Your task to perform on an android device: Open calendar and show me the fourth week of next month Image 0: 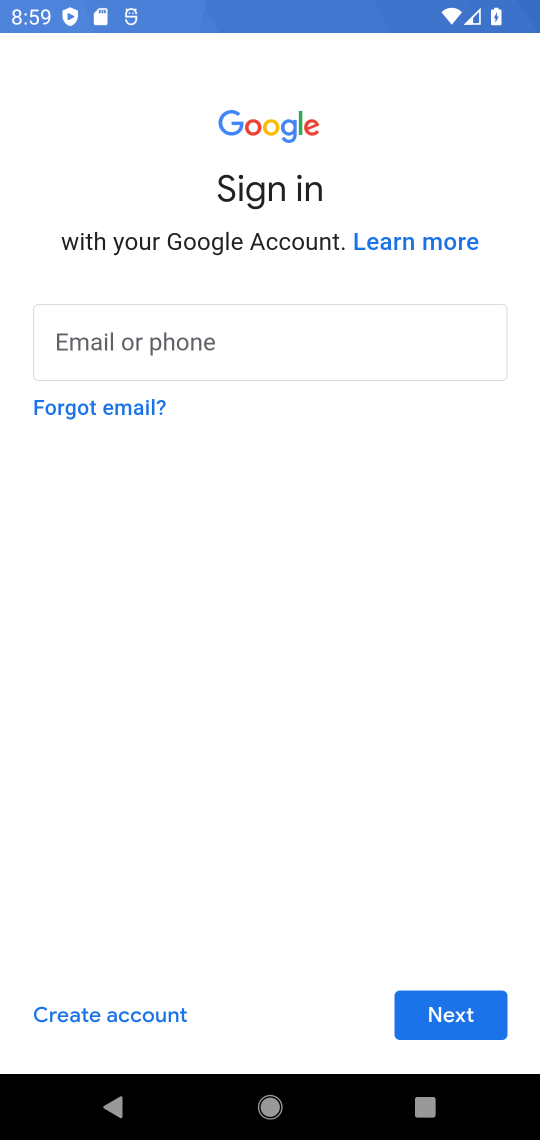
Step 0: press home button
Your task to perform on an android device: Open calendar and show me the fourth week of next month Image 1: 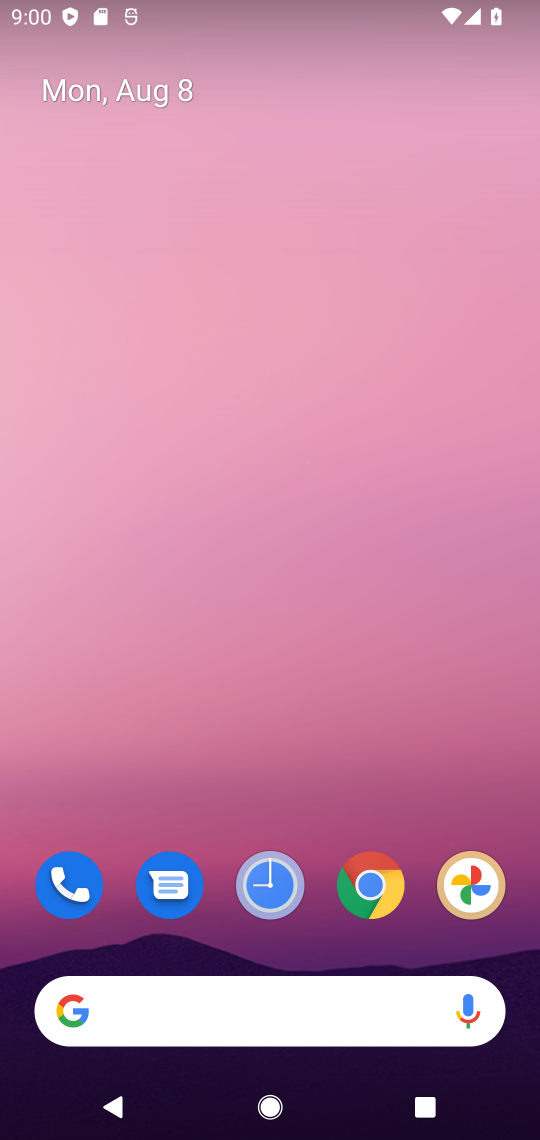
Step 1: drag from (168, 686) to (222, 256)
Your task to perform on an android device: Open calendar and show me the fourth week of next month Image 2: 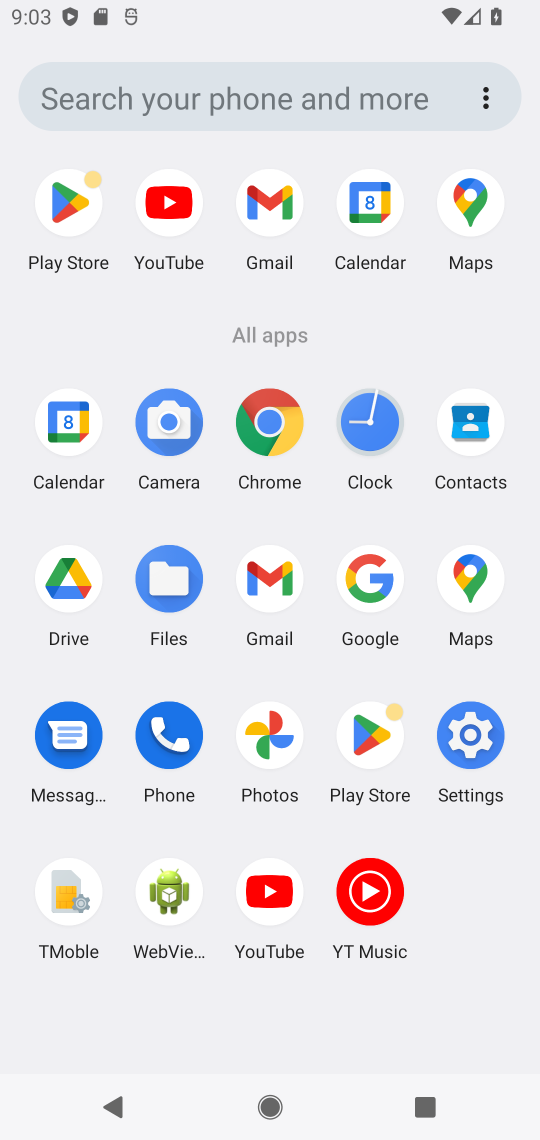
Step 2: click (75, 412)
Your task to perform on an android device: Open calendar and show me the fourth week of next month Image 3: 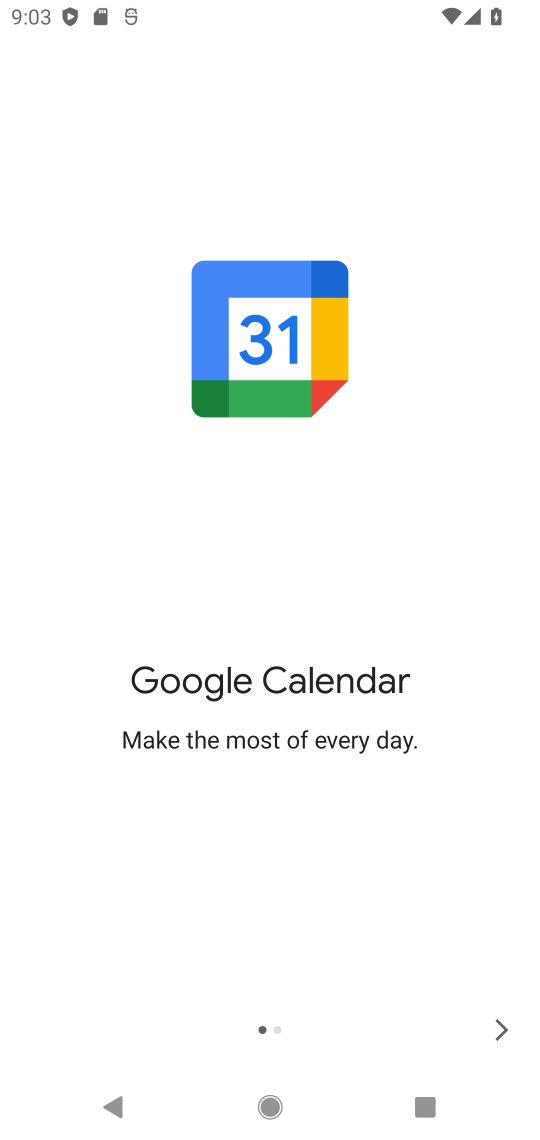
Step 3: click (480, 1037)
Your task to perform on an android device: Open calendar and show me the fourth week of next month Image 4: 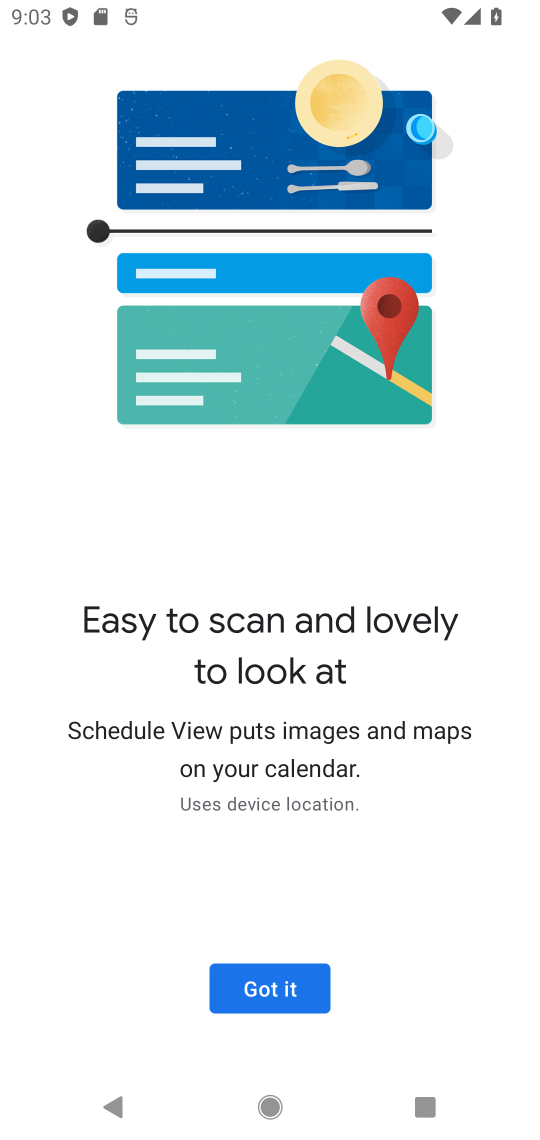
Step 4: click (290, 968)
Your task to perform on an android device: Open calendar and show me the fourth week of next month Image 5: 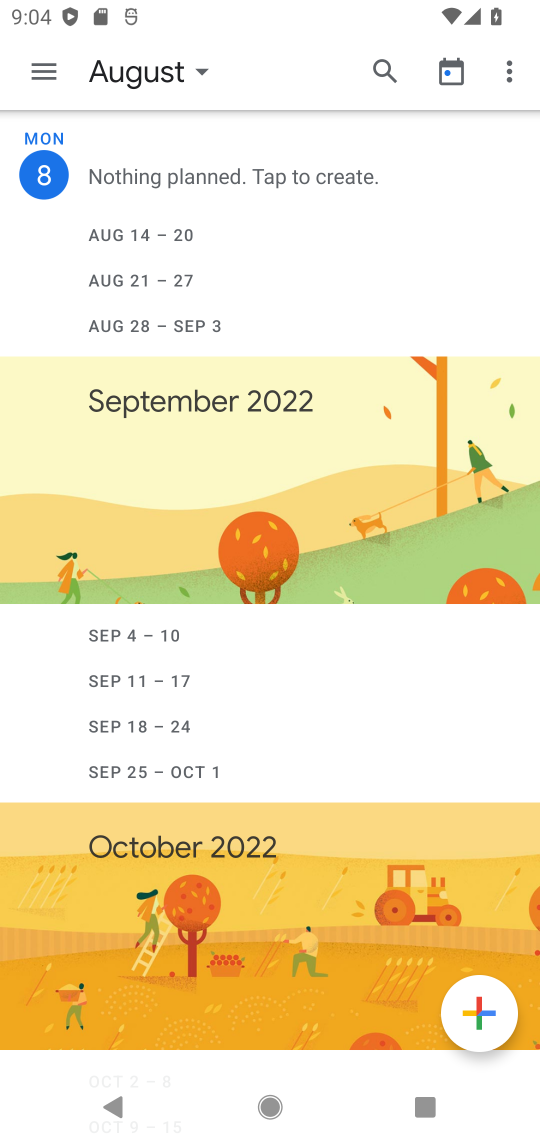
Step 5: click (164, 74)
Your task to perform on an android device: Open calendar and show me the fourth week of next month Image 6: 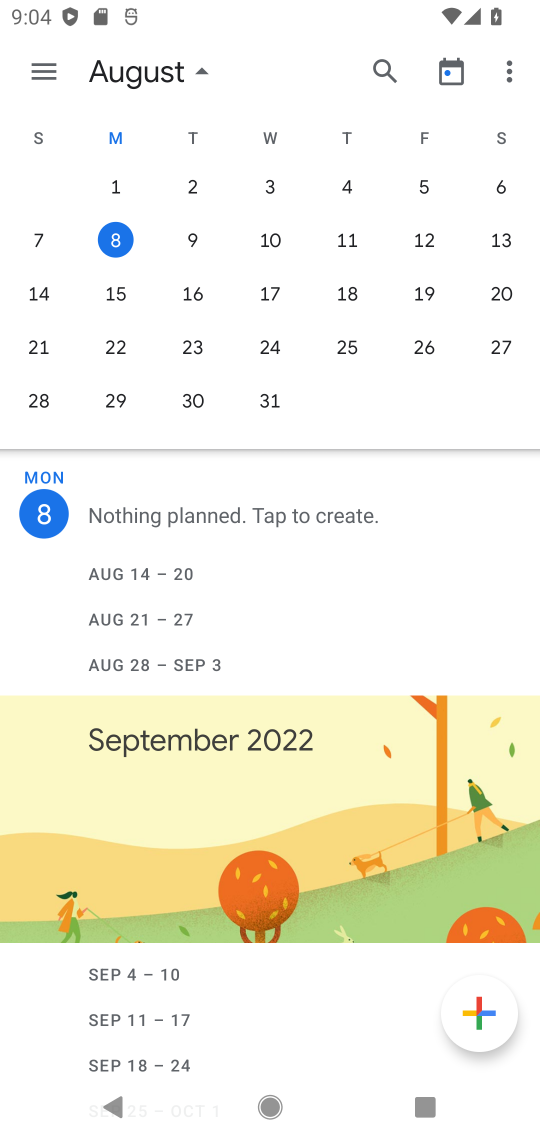
Step 6: drag from (527, 298) to (1, 153)
Your task to perform on an android device: Open calendar and show me the fourth week of next month Image 7: 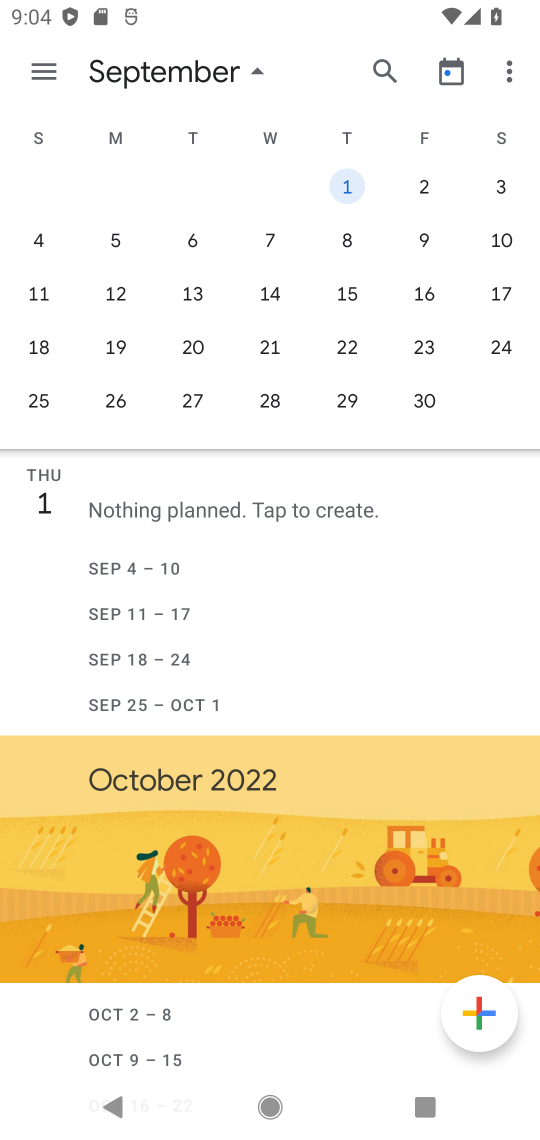
Step 7: drag from (495, 347) to (70, 383)
Your task to perform on an android device: Open calendar and show me the fourth week of next month Image 8: 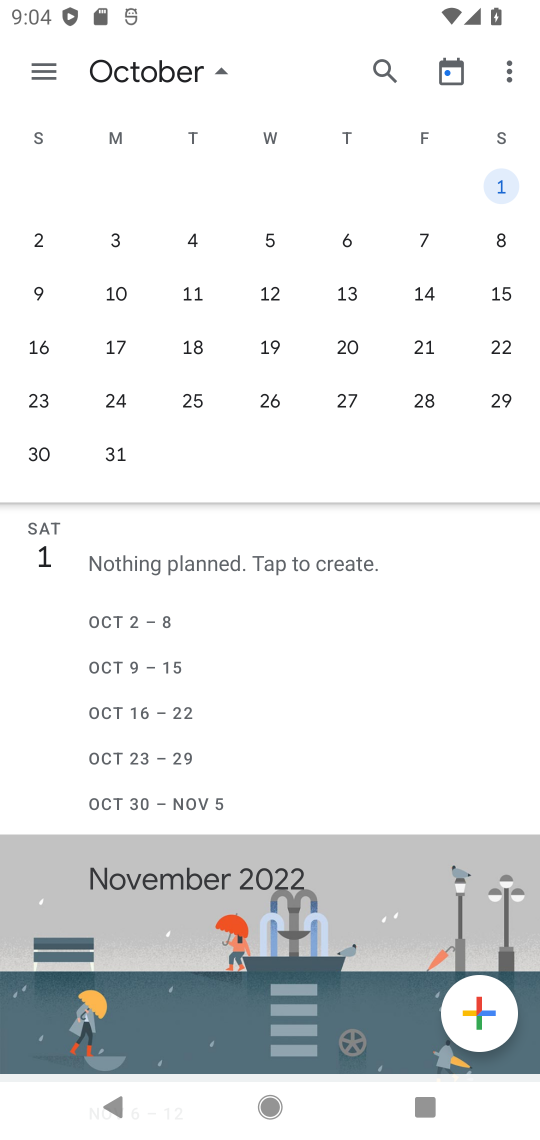
Step 8: drag from (115, 315) to (499, 426)
Your task to perform on an android device: Open calendar and show me the fourth week of next month Image 9: 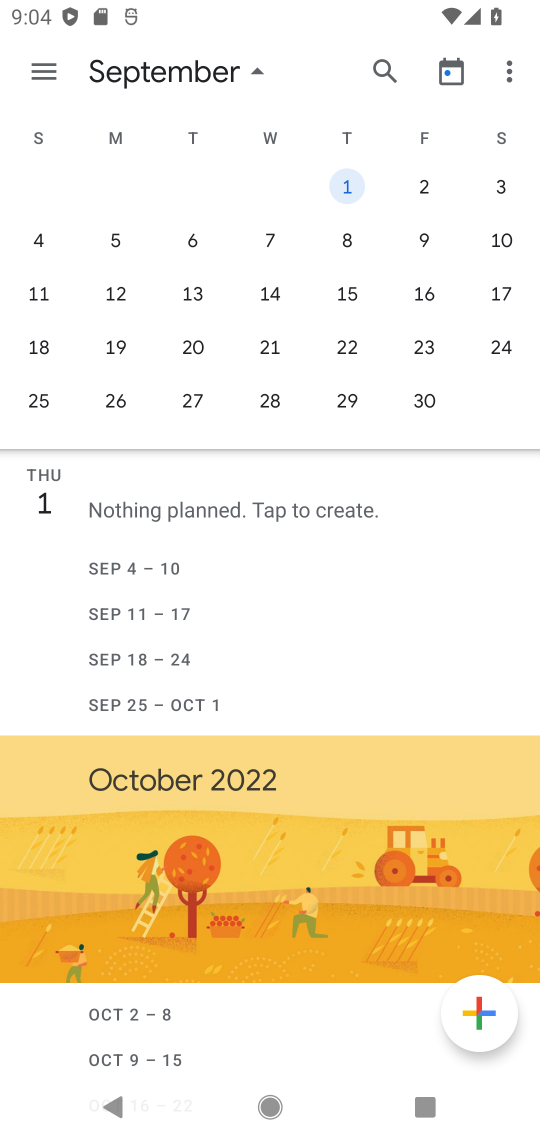
Step 9: click (33, 348)
Your task to perform on an android device: Open calendar and show me the fourth week of next month Image 10: 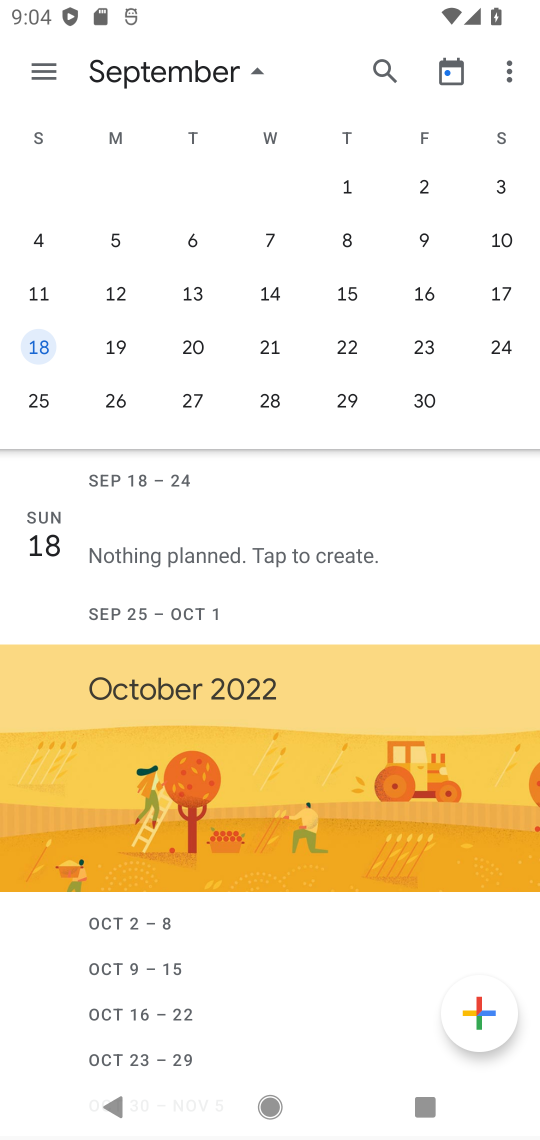
Step 10: task complete